Your task to perform on an android device: make emails show in primary in the gmail app Image 0: 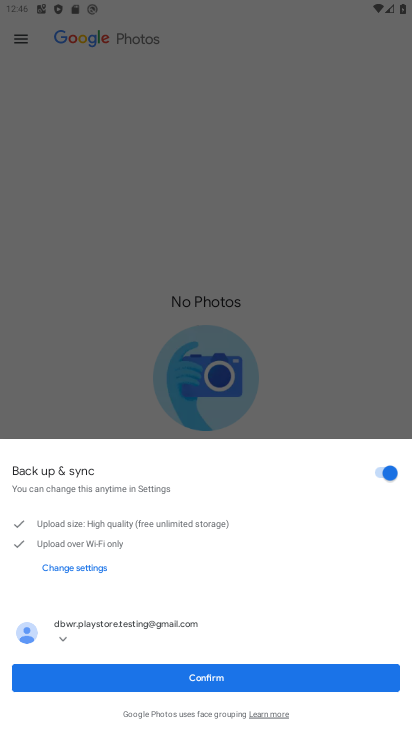
Step 0: press home button
Your task to perform on an android device: make emails show in primary in the gmail app Image 1: 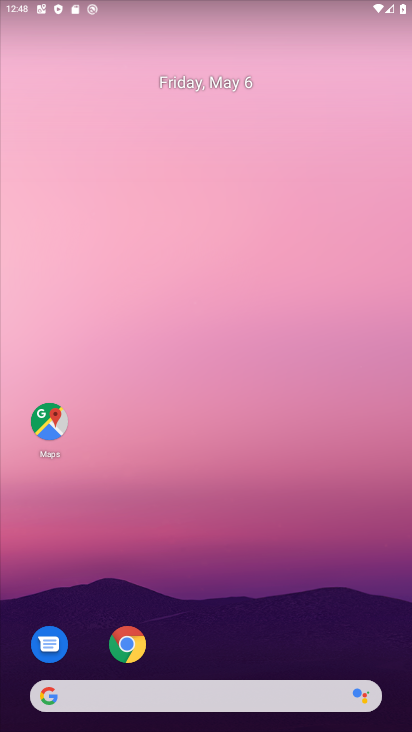
Step 1: drag from (221, 723) to (239, 177)
Your task to perform on an android device: make emails show in primary in the gmail app Image 2: 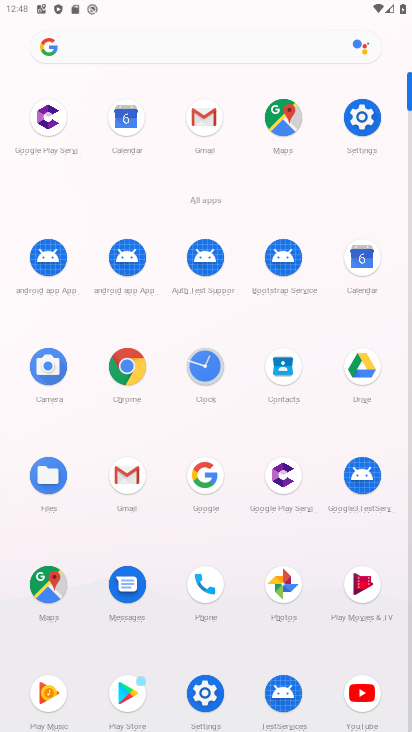
Step 2: click (196, 118)
Your task to perform on an android device: make emails show in primary in the gmail app Image 3: 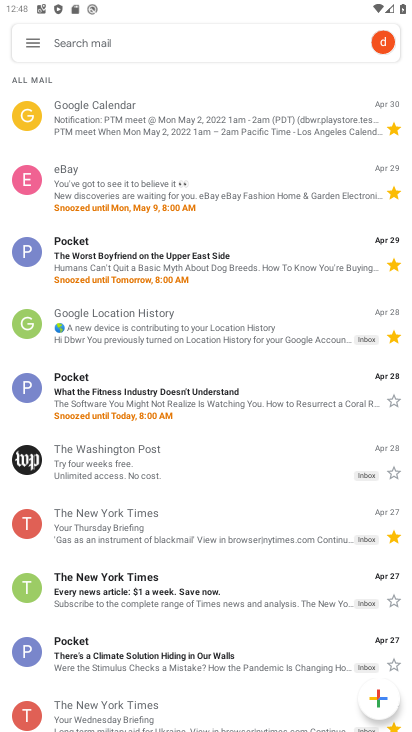
Step 3: click (39, 45)
Your task to perform on an android device: make emails show in primary in the gmail app Image 4: 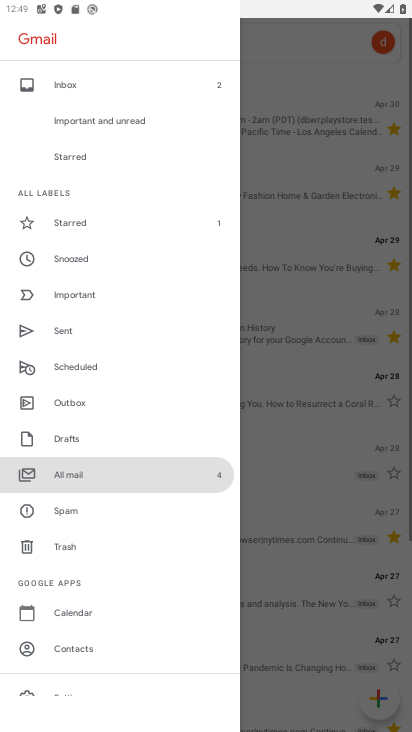
Step 4: drag from (130, 649) to (125, 247)
Your task to perform on an android device: make emails show in primary in the gmail app Image 5: 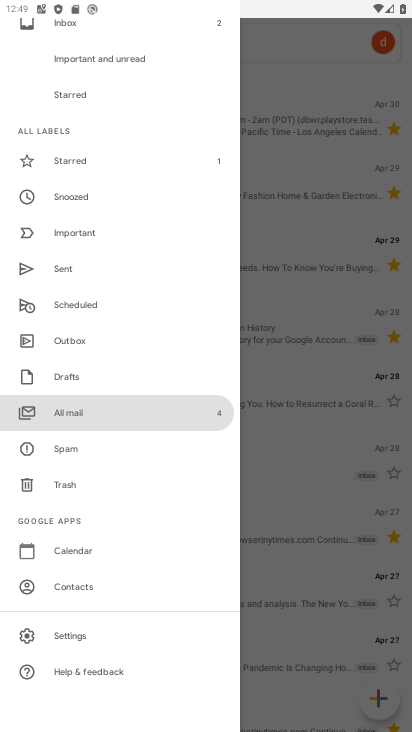
Step 5: click (56, 636)
Your task to perform on an android device: make emails show in primary in the gmail app Image 6: 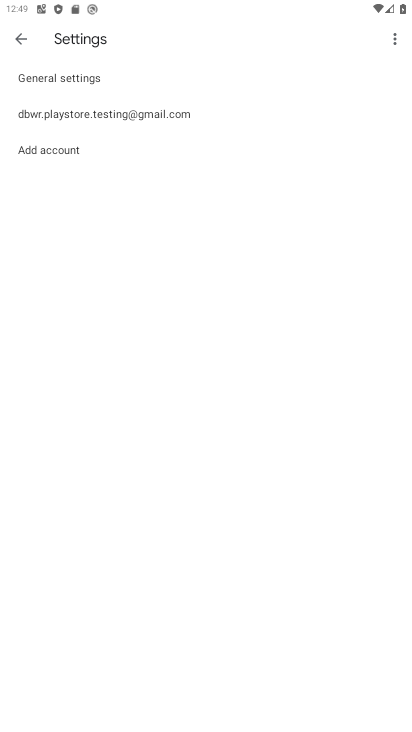
Step 6: click (136, 110)
Your task to perform on an android device: make emails show in primary in the gmail app Image 7: 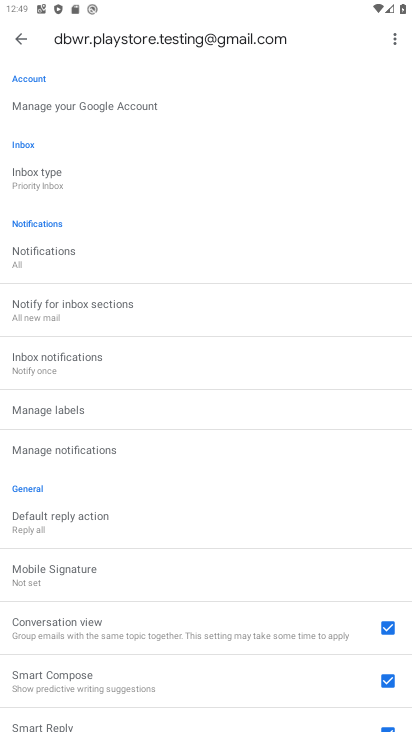
Step 7: click (54, 181)
Your task to perform on an android device: make emails show in primary in the gmail app Image 8: 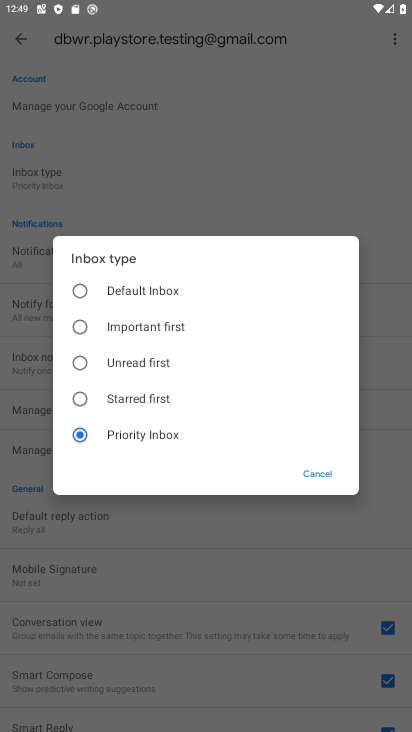
Step 8: click (159, 283)
Your task to perform on an android device: make emails show in primary in the gmail app Image 9: 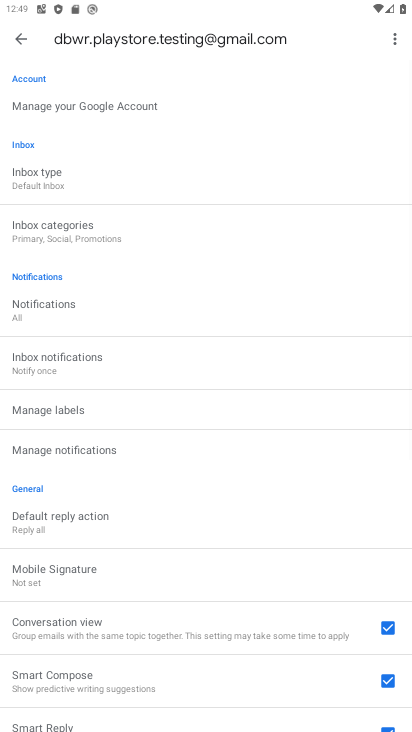
Step 9: click (49, 244)
Your task to perform on an android device: make emails show in primary in the gmail app Image 10: 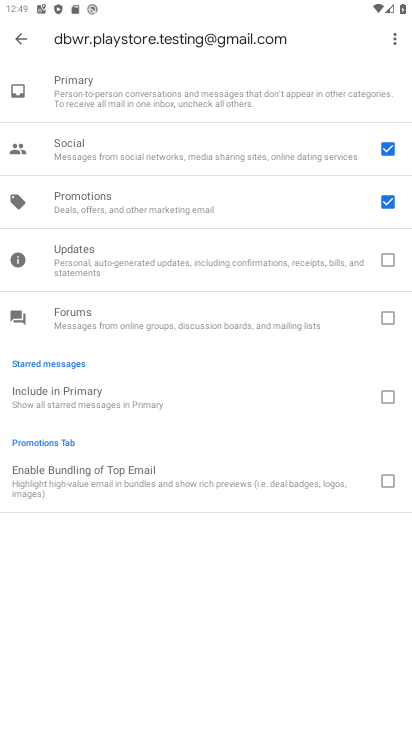
Step 10: click (388, 207)
Your task to perform on an android device: make emails show in primary in the gmail app Image 11: 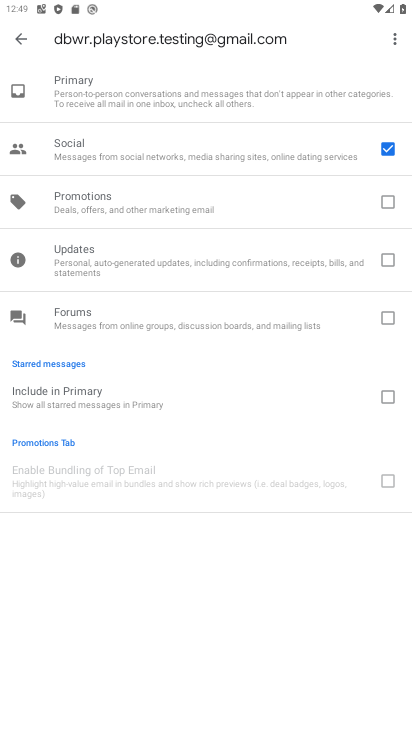
Step 11: click (395, 144)
Your task to perform on an android device: make emails show in primary in the gmail app Image 12: 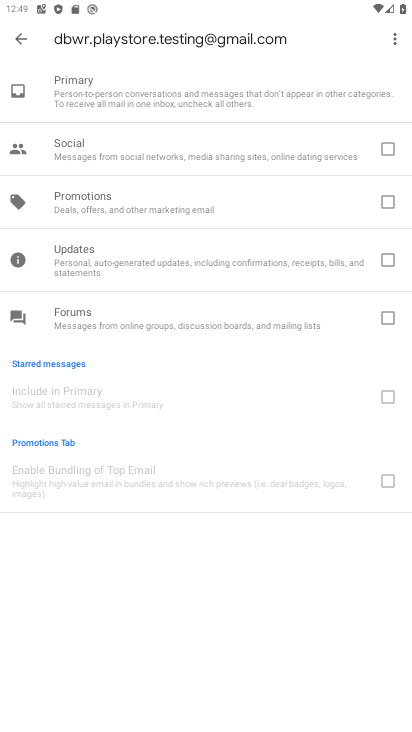
Step 12: task complete